Your task to perform on an android device: Open eBay Image 0: 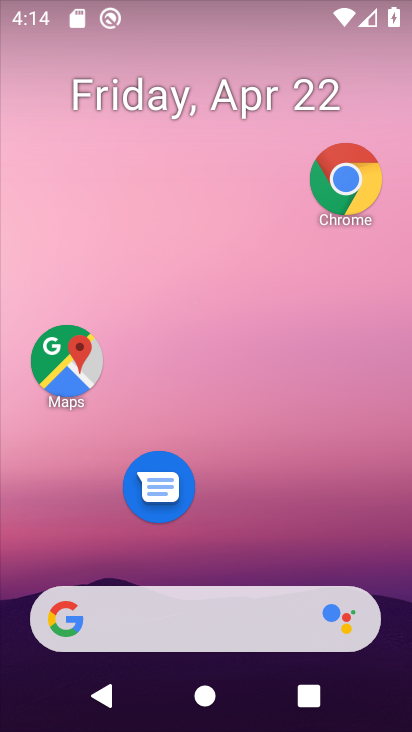
Step 0: click (360, 182)
Your task to perform on an android device: Open eBay Image 1: 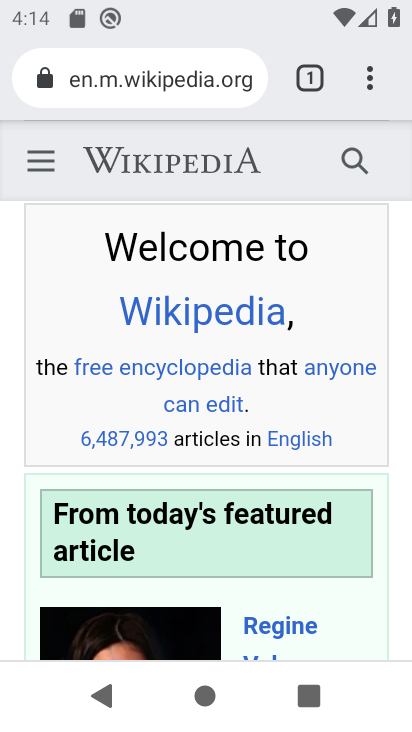
Step 1: click (172, 98)
Your task to perform on an android device: Open eBay Image 2: 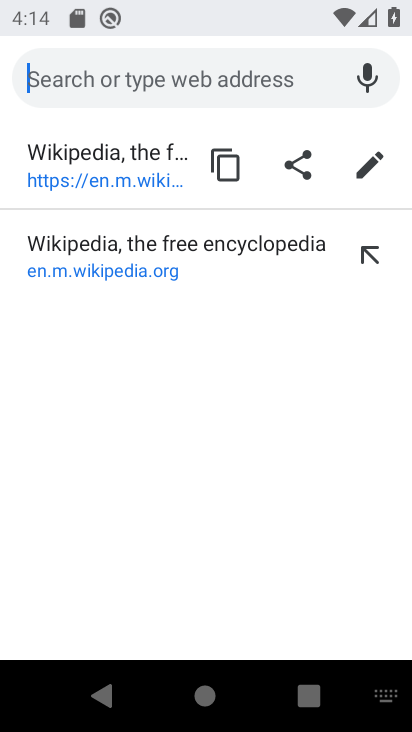
Step 2: type "ebay"
Your task to perform on an android device: Open eBay Image 3: 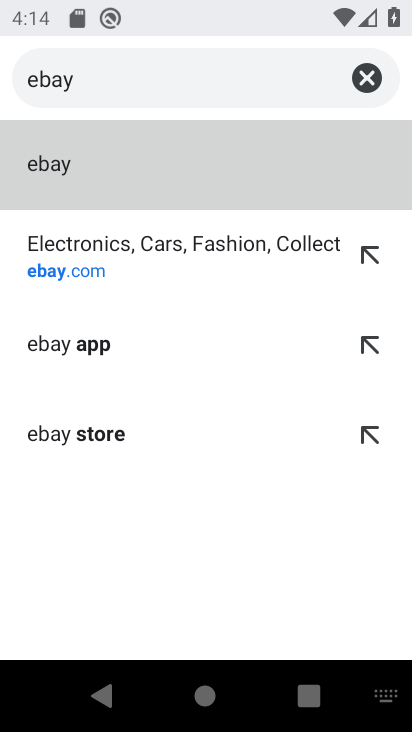
Step 3: click (35, 173)
Your task to perform on an android device: Open eBay Image 4: 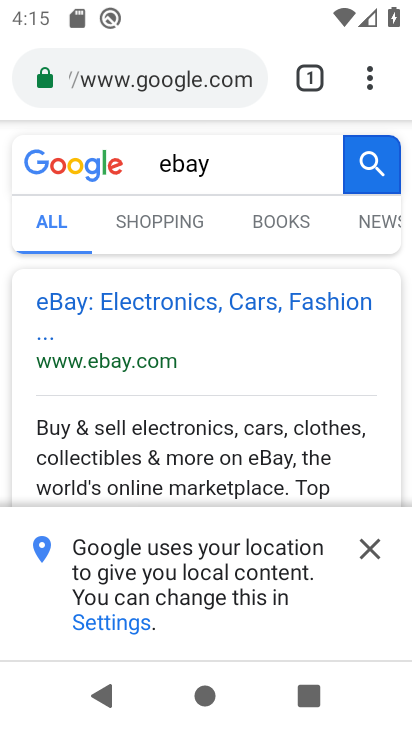
Step 4: click (112, 306)
Your task to perform on an android device: Open eBay Image 5: 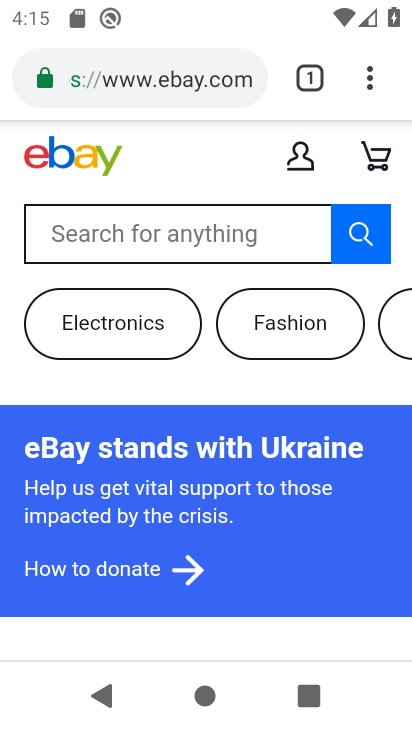
Step 5: task complete